Your task to perform on an android device: choose inbox layout in the gmail app Image 0: 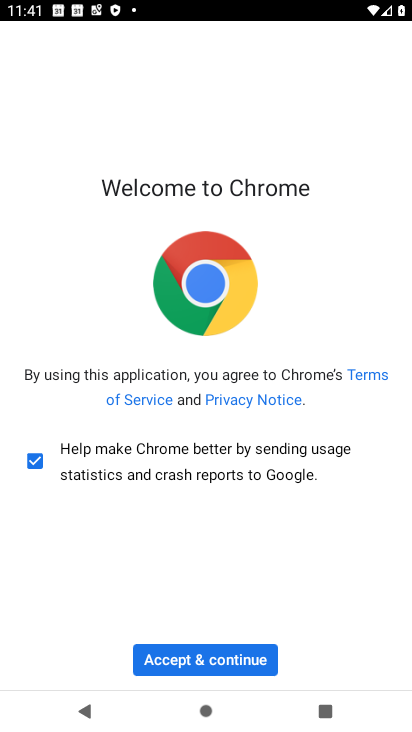
Step 0: press home button
Your task to perform on an android device: choose inbox layout in the gmail app Image 1: 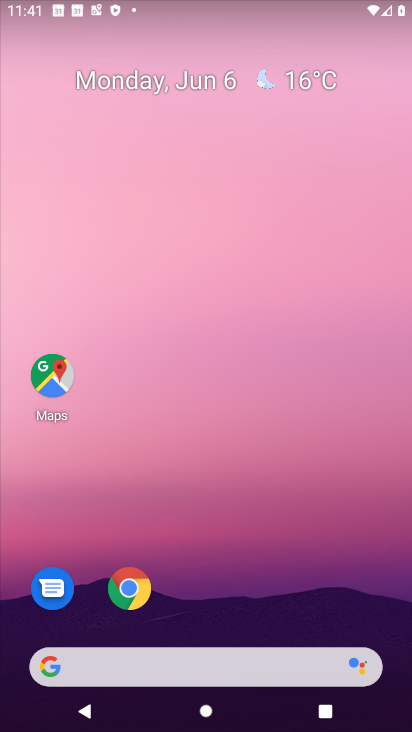
Step 1: drag from (208, 636) to (153, 4)
Your task to perform on an android device: choose inbox layout in the gmail app Image 2: 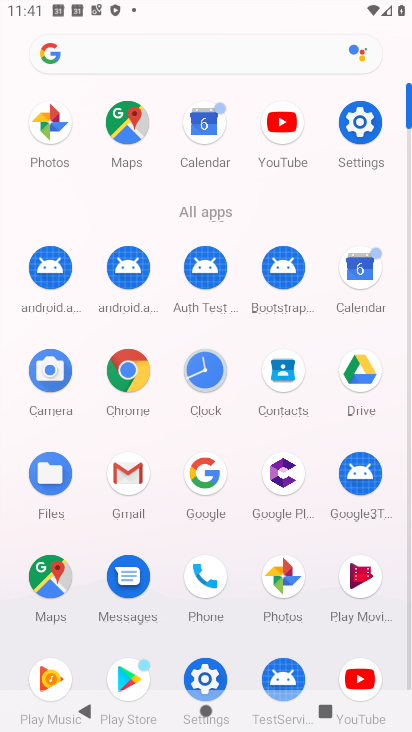
Step 2: click (120, 469)
Your task to perform on an android device: choose inbox layout in the gmail app Image 3: 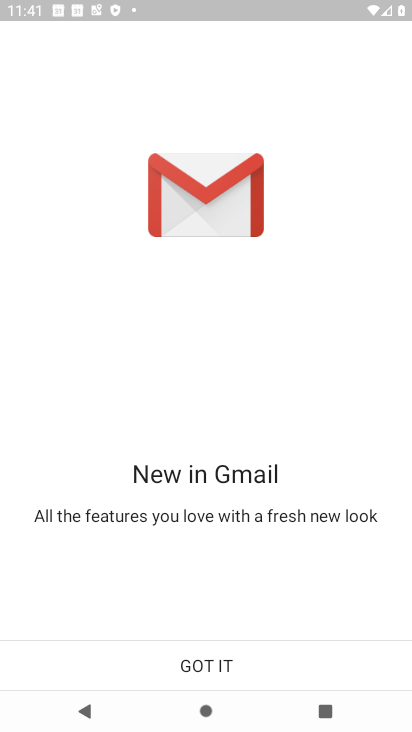
Step 3: click (176, 661)
Your task to perform on an android device: choose inbox layout in the gmail app Image 4: 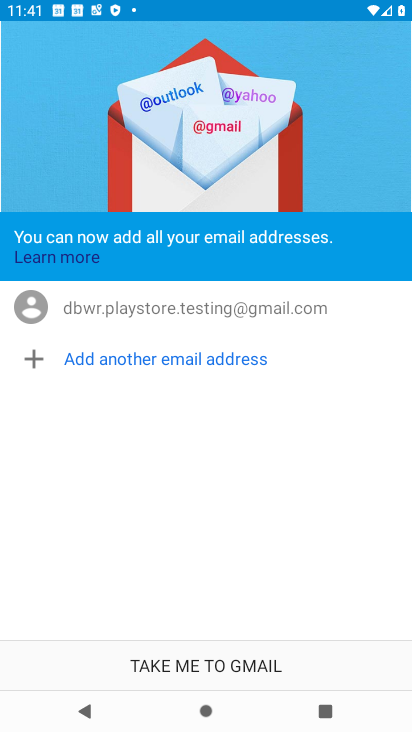
Step 4: click (176, 661)
Your task to perform on an android device: choose inbox layout in the gmail app Image 5: 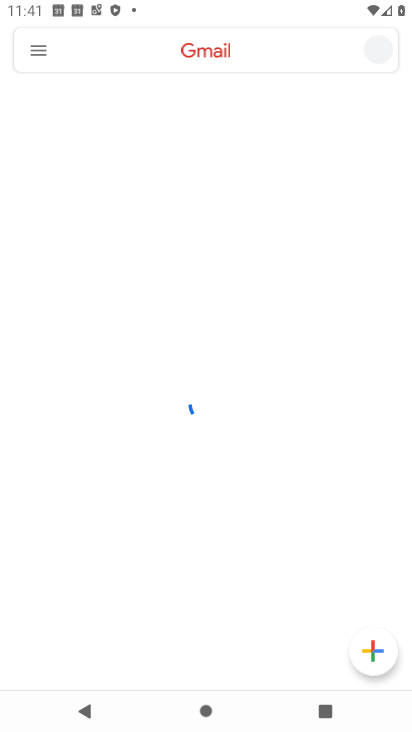
Step 5: click (43, 48)
Your task to perform on an android device: choose inbox layout in the gmail app Image 6: 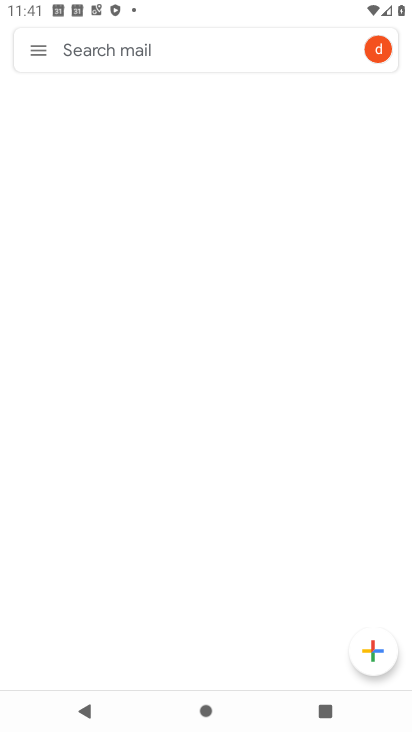
Step 6: click (74, 224)
Your task to perform on an android device: choose inbox layout in the gmail app Image 7: 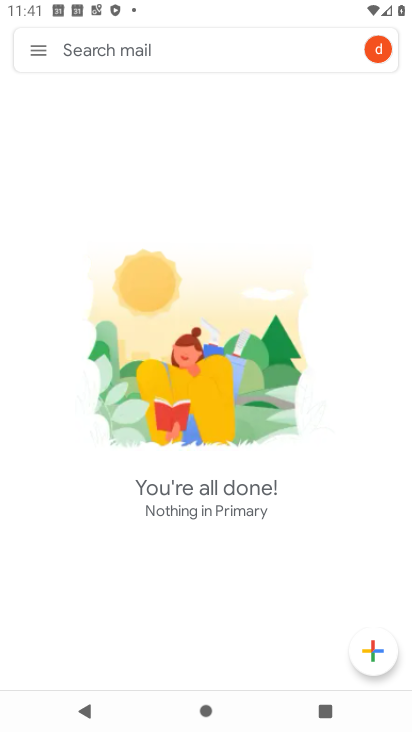
Step 7: click (31, 58)
Your task to perform on an android device: choose inbox layout in the gmail app Image 8: 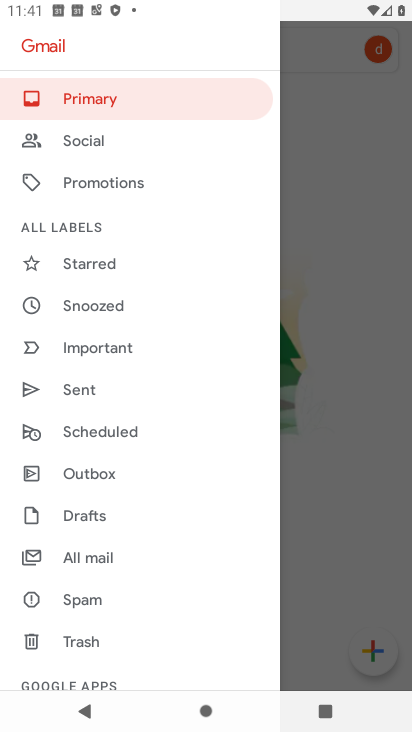
Step 8: drag from (170, 518) to (151, 63)
Your task to perform on an android device: choose inbox layout in the gmail app Image 9: 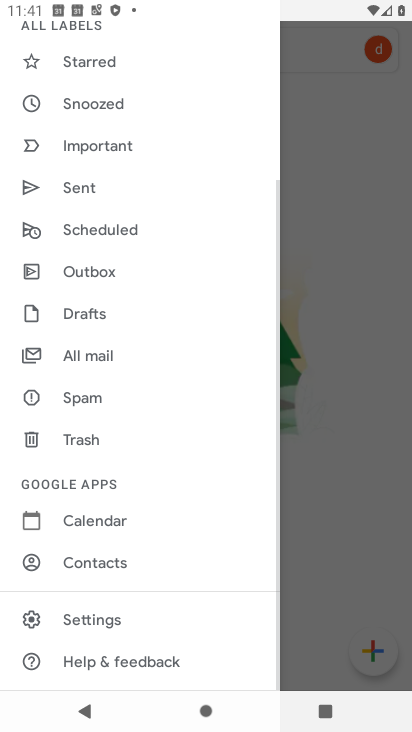
Step 9: click (52, 611)
Your task to perform on an android device: choose inbox layout in the gmail app Image 10: 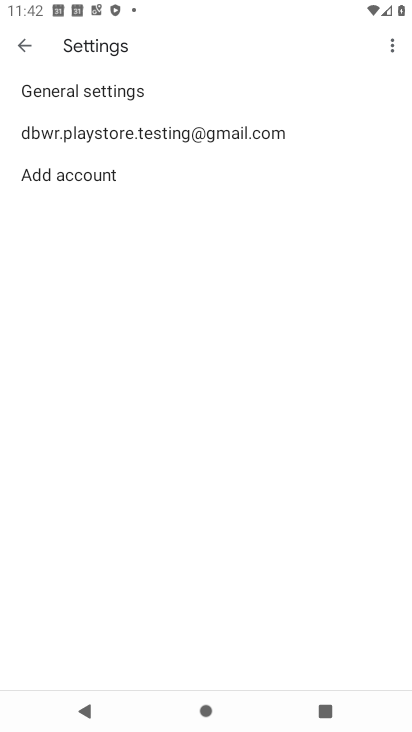
Step 10: click (137, 117)
Your task to perform on an android device: choose inbox layout in the gmail app Image 11: 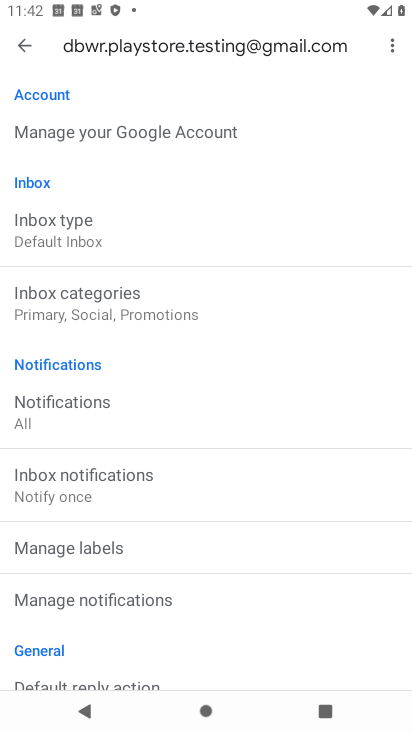
Step 11: drag from (117, 569) to (159, 88)
Your task to perform on an android device: choose inbox layout in the gmail app Image 12: 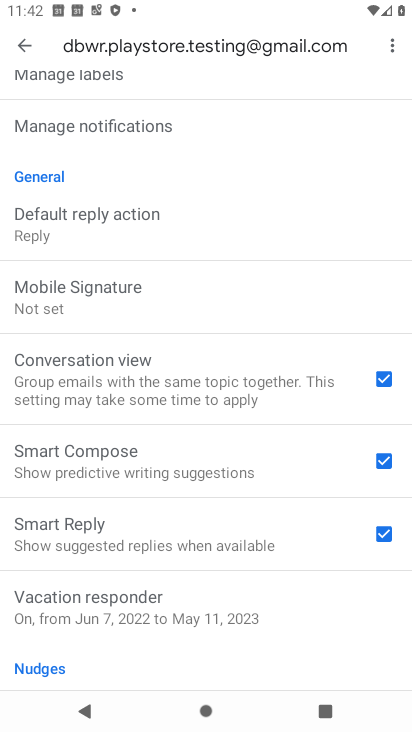
Step 12: drag from (153, 521) to (153, 263)
Your task to perform on an android device: choose inbox layout in the gmail app Image 13: 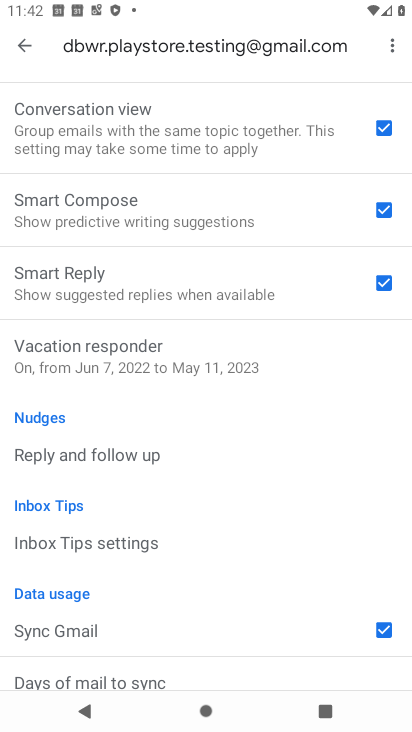
Step 13: drag from (153, 263) to (197, 728)
Your task to perform on an android device: choose inbox layout in the gmail app Image 14: 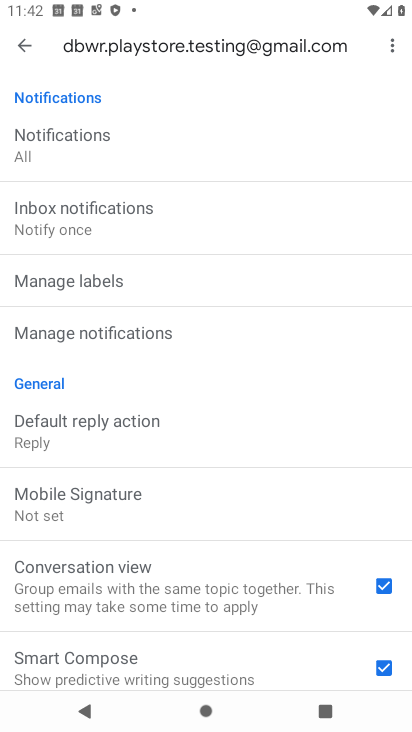
Step 14: drag from (372, 301) to (336, 623)
Your task to perform on an android device: choose inbox layout in the gmail app Image 15: 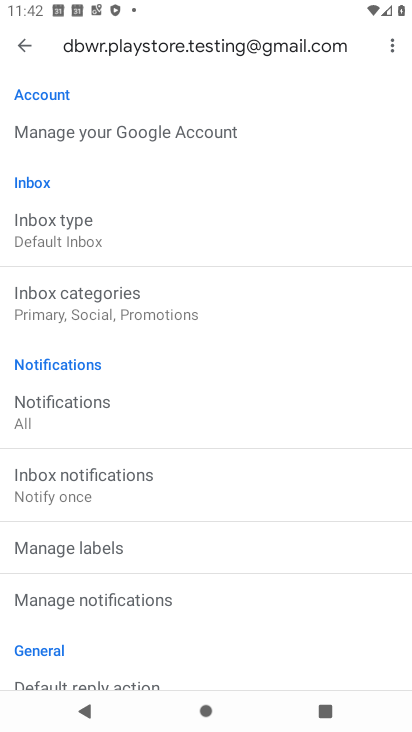
Step 15: click (66, 201)
Your task to perform on an android device: choose inbox layout in the gmail app Image 16: 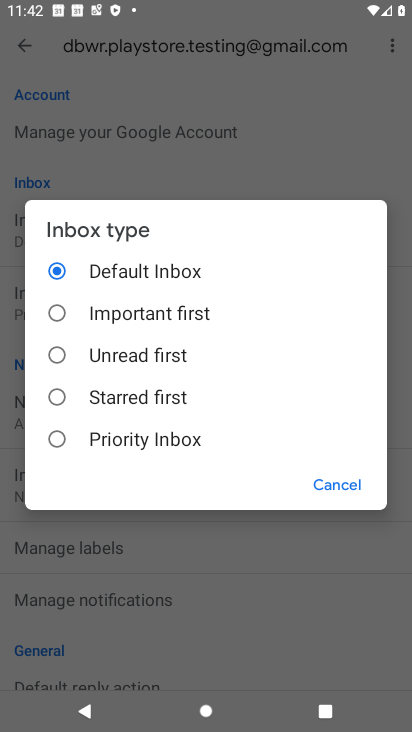
Step 16: click (74, 437)
Your task to perform on an android device: choose inbox layout in the gmail app Image 17: 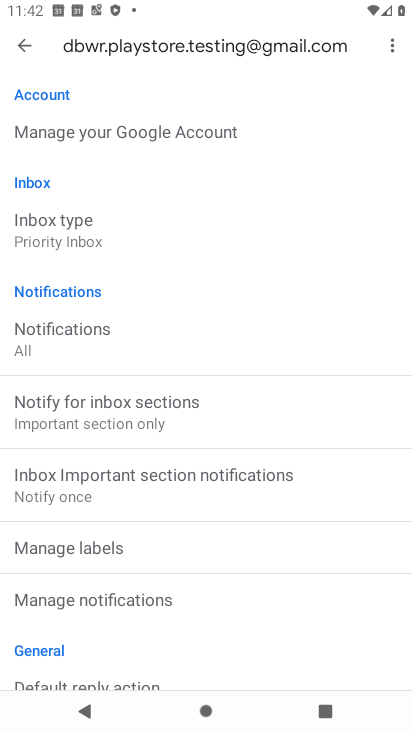
Step 17: task complete